Your task to perform on an android device: Show me popular videos on Youtube Image 0: 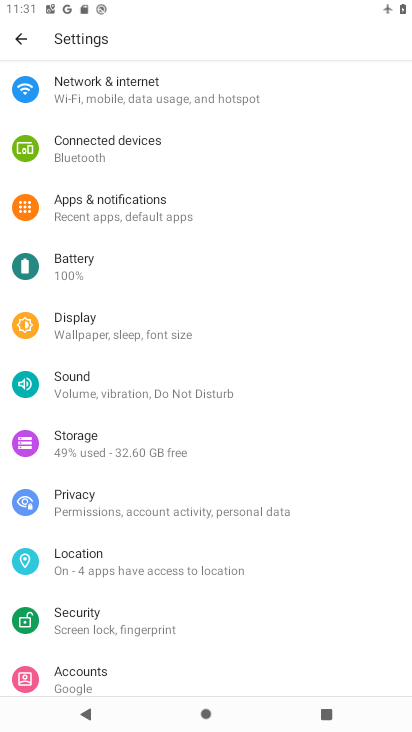
Step 0: press home button
Your task to perform on an android device: Show me popular videos on Youtube Image 1: 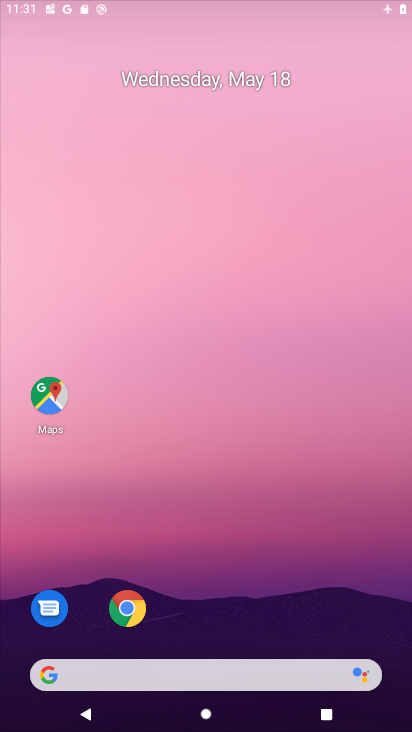
Step 1: drag from (205, 548) to (214, 92)
Your task to perform on an android device: Show me popular videos on Youtube Image 2: 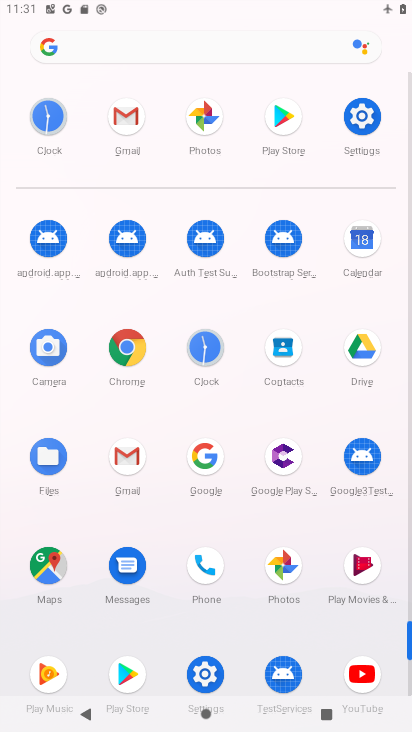
Step 2: click (369, 670)
Your task to perform on an android device: Show me popular videos on Youtube Image 3: 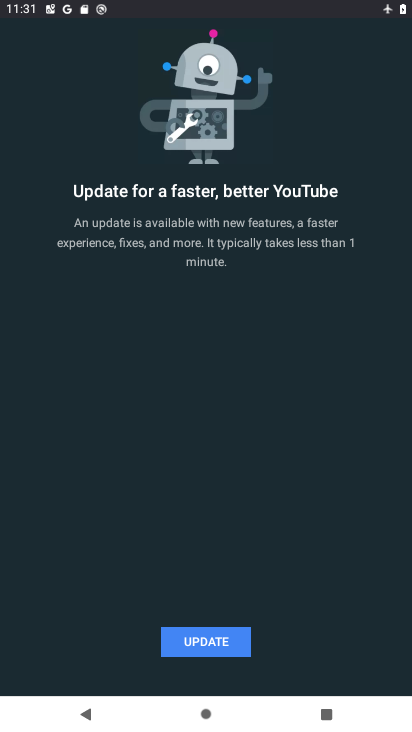
Step 3: click (208, 644)
Your task to perform on an android device: Show me popular videos on Youtube Image 4: 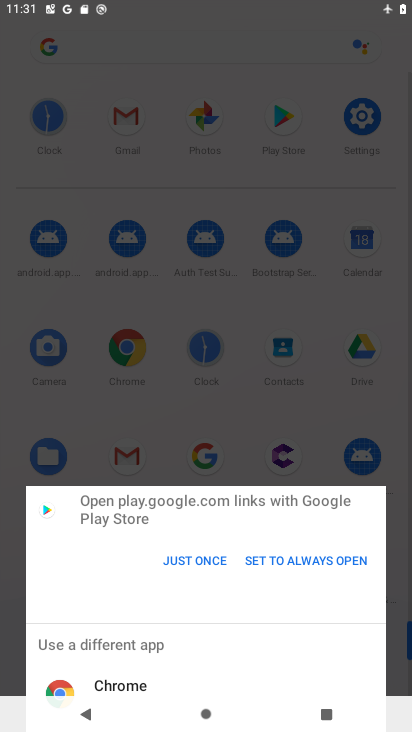
Step 4: click (182, 562)
Your task to perform on an android device: Show me popular videos on Youtube Image 5: 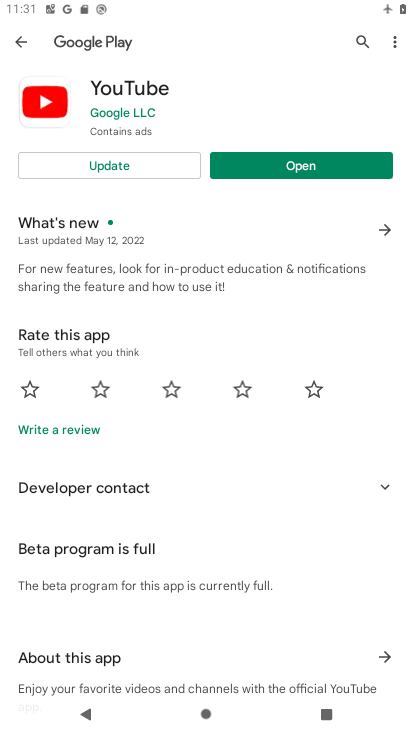
Step 5: click (132, 163)
Your task to perform on an android device: Show me popular videos on Youtube Image 6: 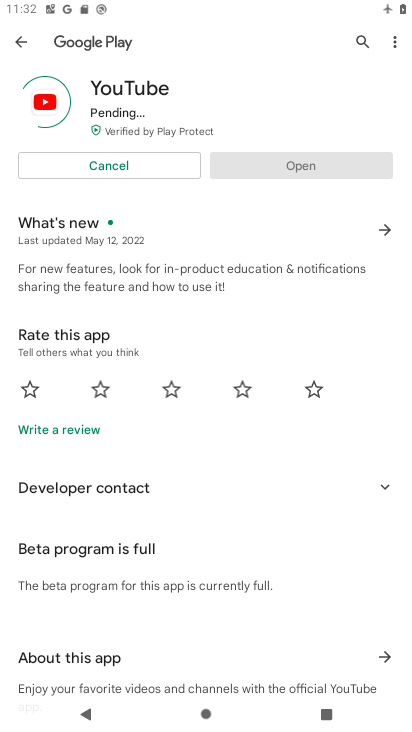
Step 6: task complete